Your task to perform on an android device: install app "DoorDash - Dasher" Image 0: 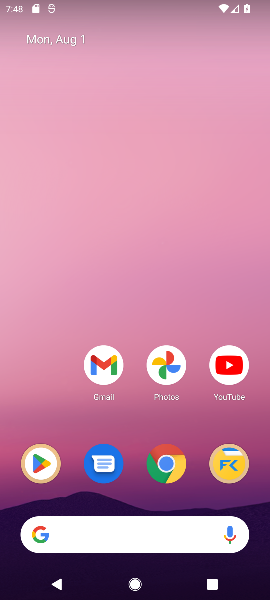
Step 0: click (51, 479)
Your task to perform on an android device: install app "DoorDash - Dasher" Image 1: 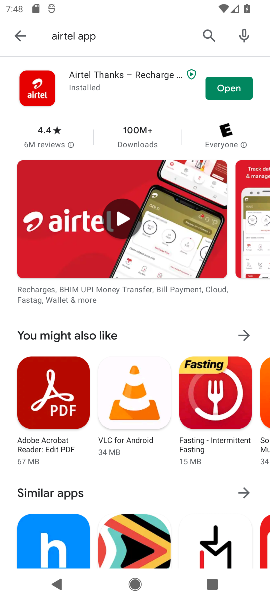
Step 1: click (201, 35)
Your task to perform on an android device: install app "DoorDash - Dasher" Image 2: 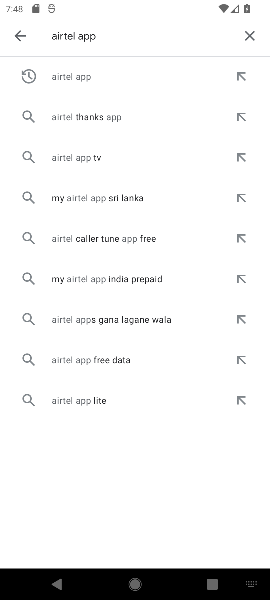
Step 2: click (246, 39)
Your task to perform on an android device: install app "DoorDash - Dasher" Image 3: 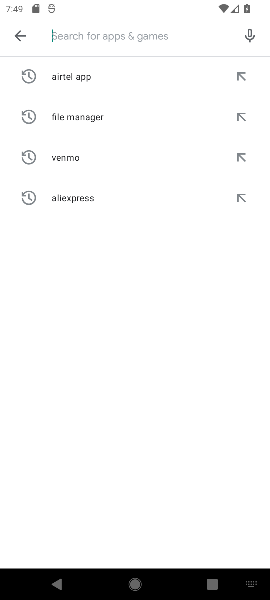
Step 3: type "doordash"
Your task to perform on an android device: install app "DoorDash - Dasher" Image 4: 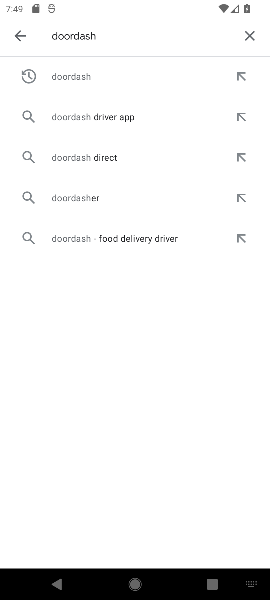
Step 4: click (213, 73)
Your task to perform on an android device: install app "DoorDash - Dasher" Image 5: 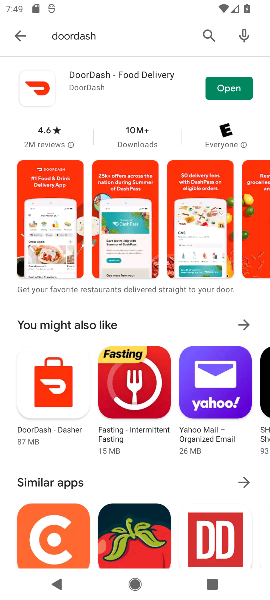
Step 5: click (230, 82)
Your task to perform on an android device: install app "DoorDash - Dasher" Image 6: 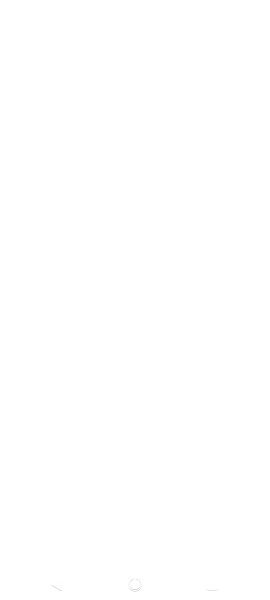
Step 6: task complete